Your task to perform on an android device: change the clock display to digital Image 0: 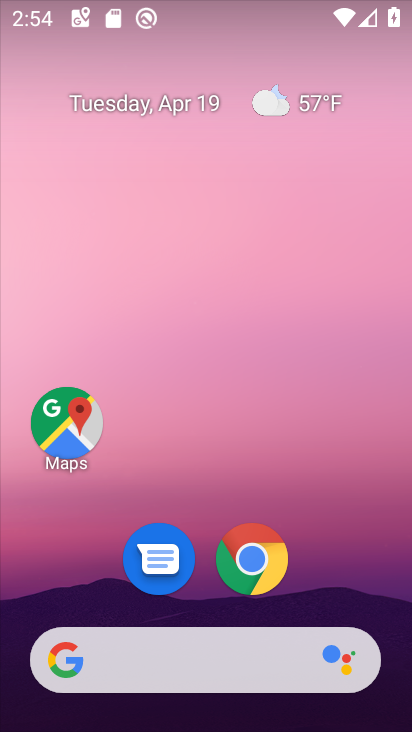
Step 0: drag from (206, 580) to (213, 95)
Your task to perform on an android device: change the clock display to digital Image 1: 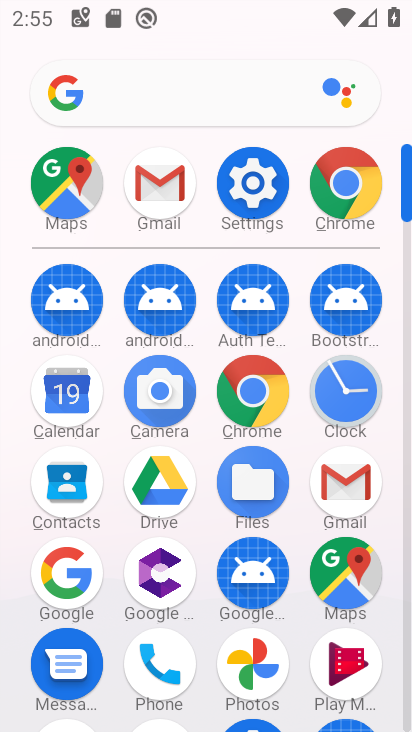
Step 1: click (341, 376)
Your task to perform on an android device: change the clock display to digital Image 2: 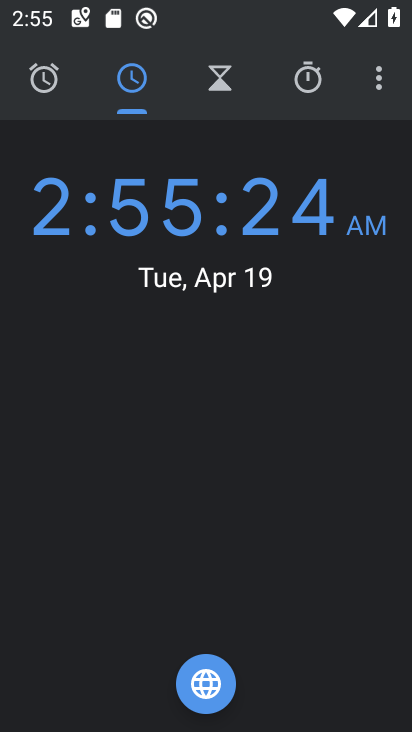
Step 2: click (383, 77)
Your task to perform on an android device: change the clock display to digital Image 3: 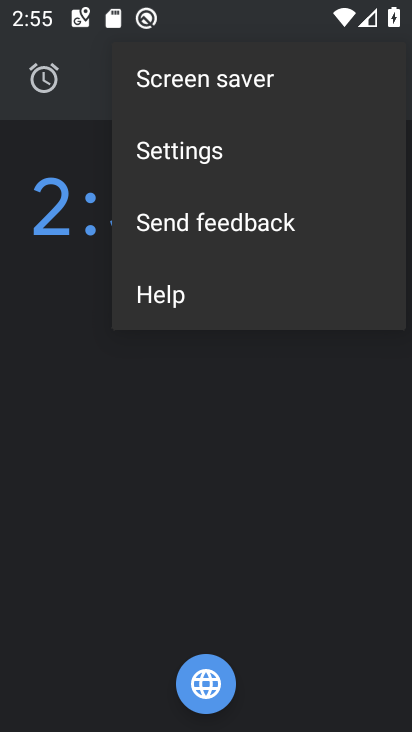
Step 3: click (229, 149)
Your task to perform on an android device: change the clock display to digital Image 4: 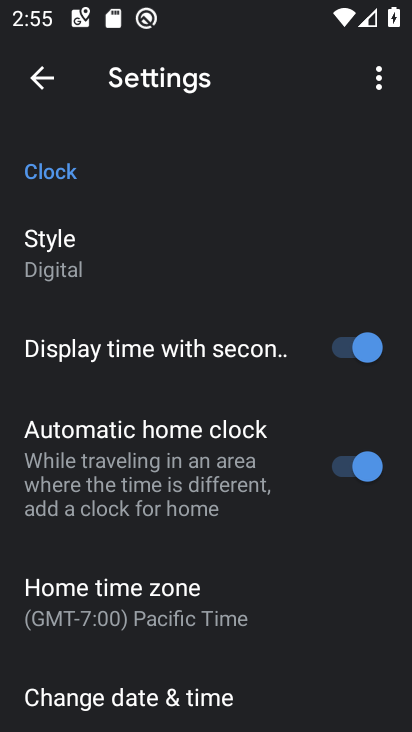
Step 4: task complete